Your task to perform on an android device: open the mobile data screen to see how much data has been used Image 0: 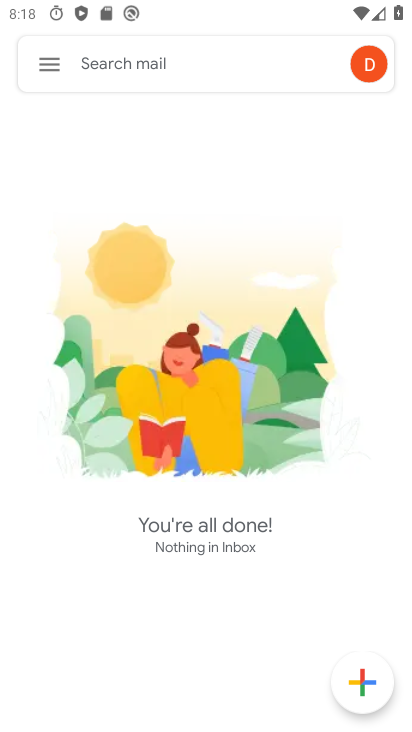
Step 0: press back button
Your task to perform on an android device: open the mobile data screen to see how much data has been used Image 1: 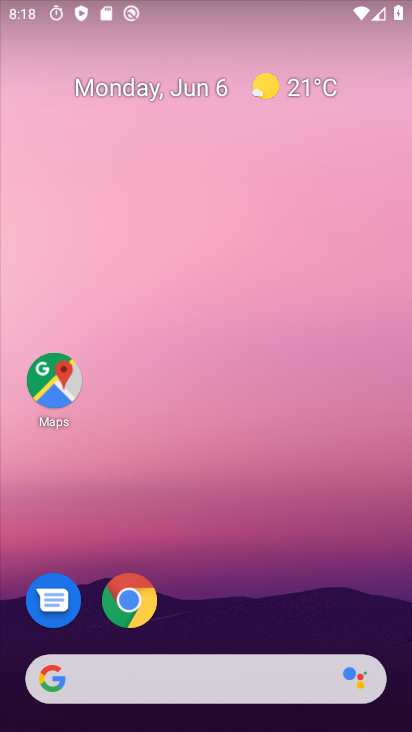
Step 1: drag from (242, 528) to (211, 44)
Your task to perform on an android device: open the mobile data screen to see how much data has been used Image 2: 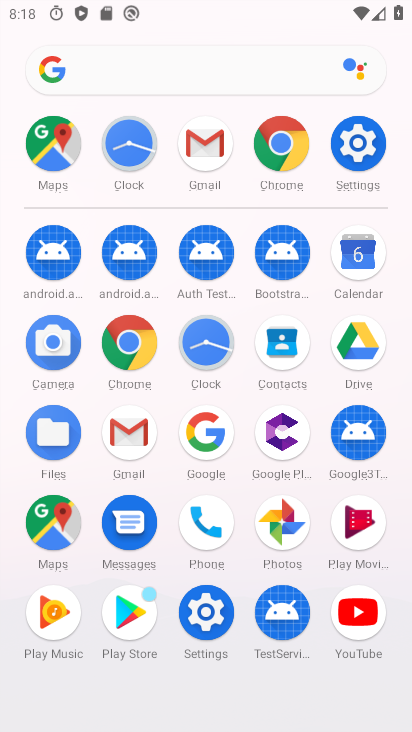
Step 2: click (202, 608)
Your task to perform on an android device: open the mobile data screen to see how much data has been used Image 3: 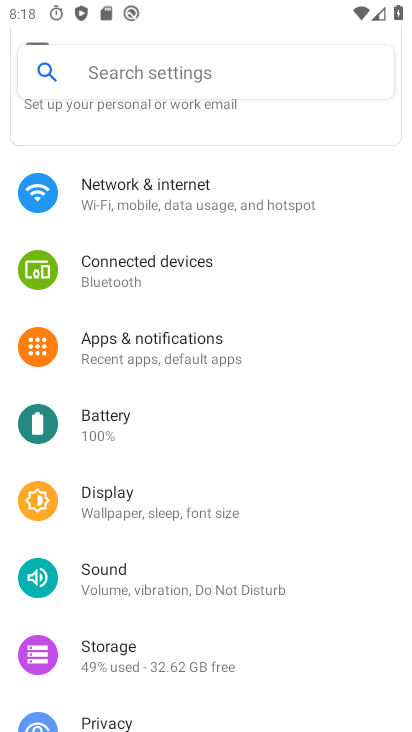
Step 3: click (213, 185)
Your task to perform on an android device: open the mobile data screen to see how much data has been used Image 4: 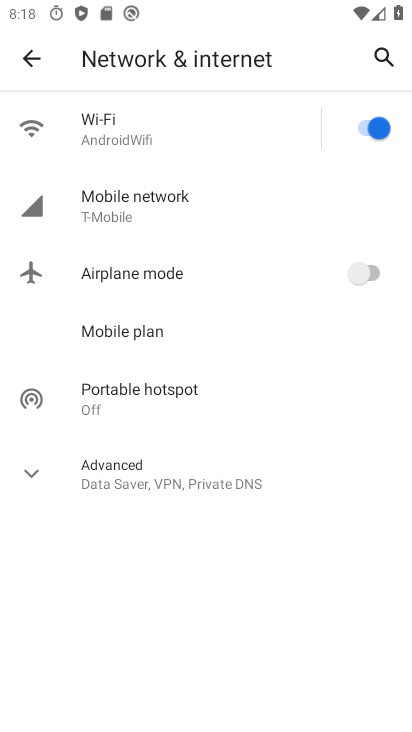
Step 4: click (181, 203)
Your task to perform on an android device: open the mobile data screen to see how much data has been used Image 5: 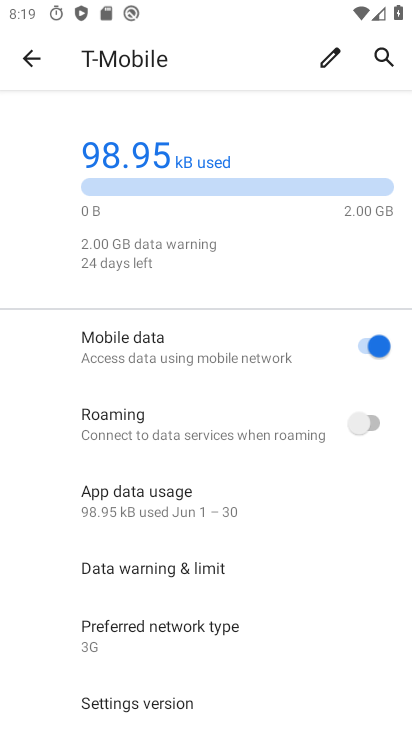
Step 5: task complete